Your task to perform on an android device: Open notification settings Image 0: 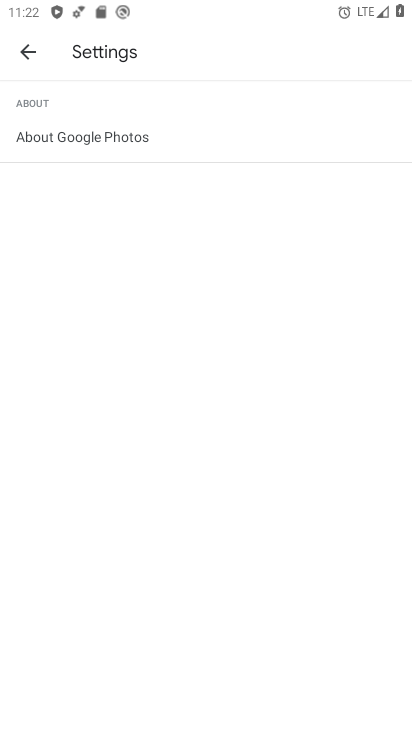
Step 0: drag from (225, 632) to (231, 9)
Your task to perform on an android device: Open notification settings Image 1: 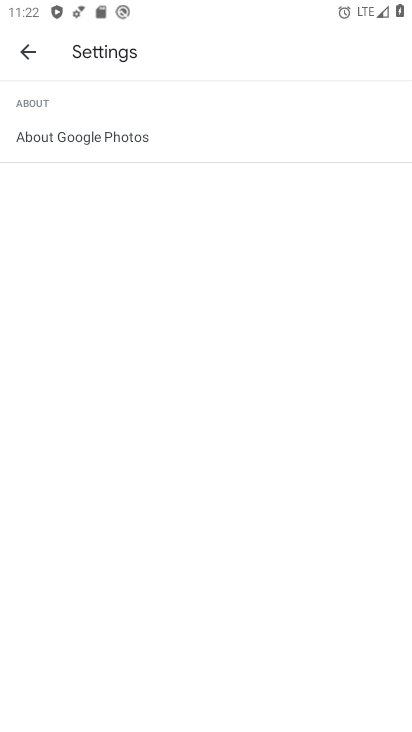
Step 1: press home button
Your task to perform on an android device: Open notification settings Image 2: 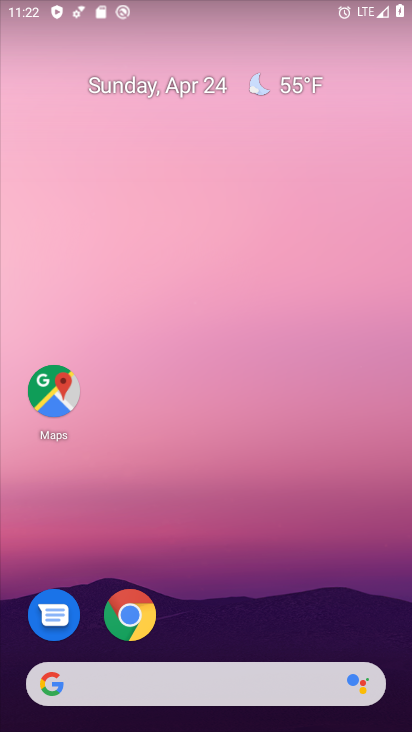
Step 2: drag from (224, 639) to (226, 26)
Your task to perform on an android device: Open notification settings Image 3: 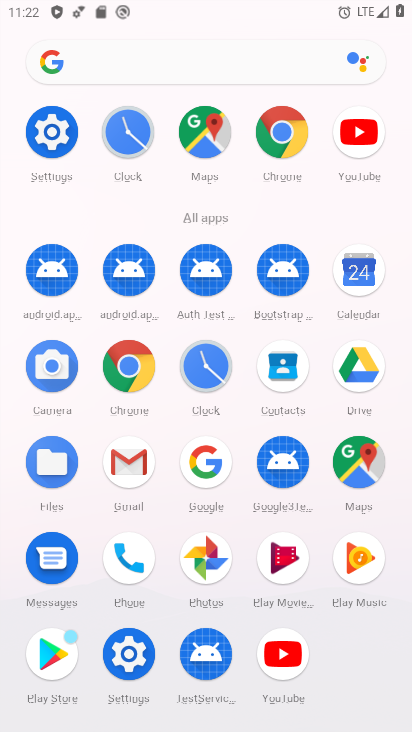
Step 3: click (48, 123)
Your task to perform on an android device: Open notification settings Image 4: 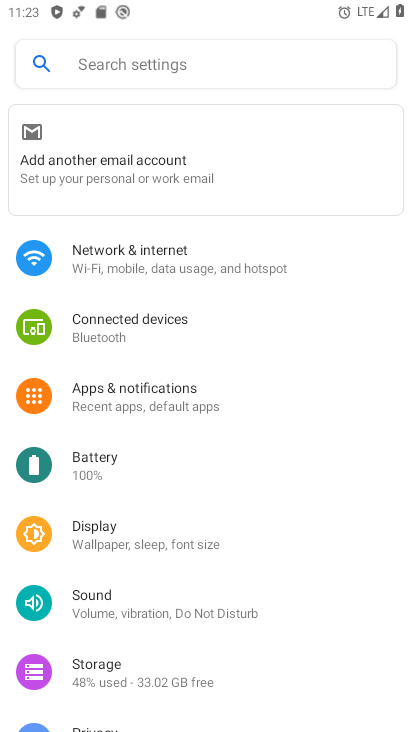
Step 4: click (197, 388)
Your task to perform on an android device: Open notification settings Image 5: 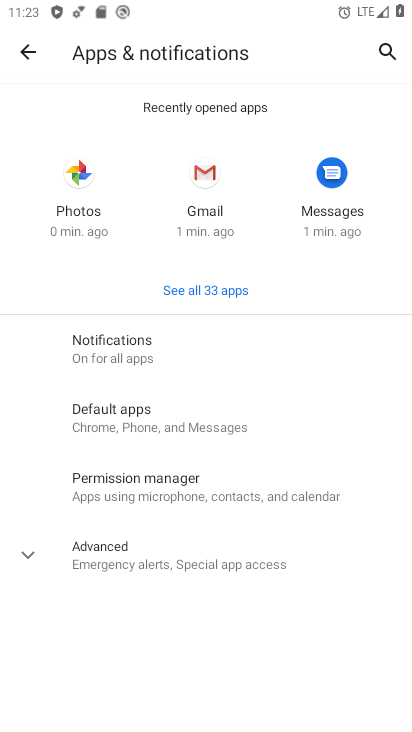
Step 5: click (160, 347)
Your task to perform on an android device: Open notification settings Image 6: 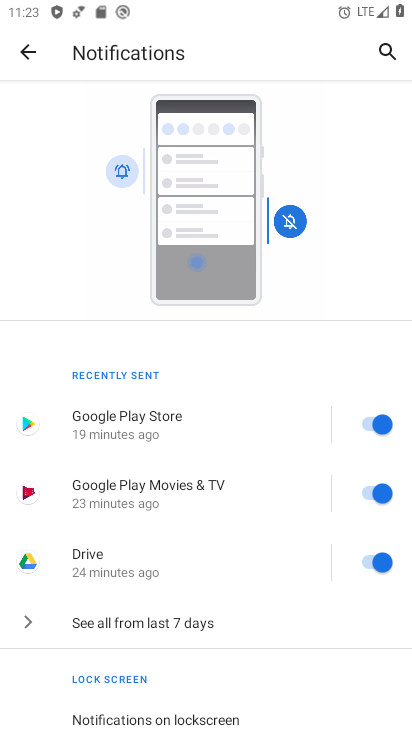
Step 6: drag from (216, 667) to (205, 319)
Your task to perform on an android device: Open notification settings Image 7: 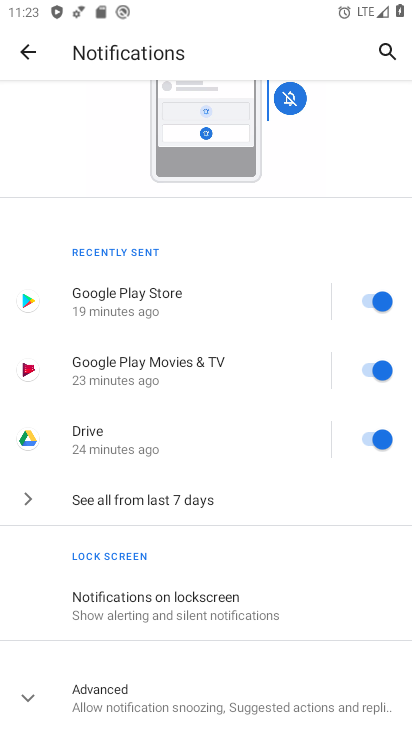
Step 7: click (372, 293)
Your task to perform on an android device: Open notification settings Image 8: 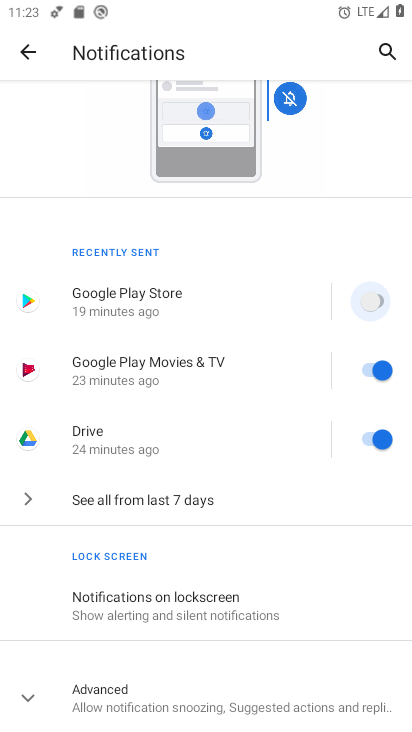
Step 8: click (382, 356)
Your task to perform on an android device: Open notification settings Image 9: 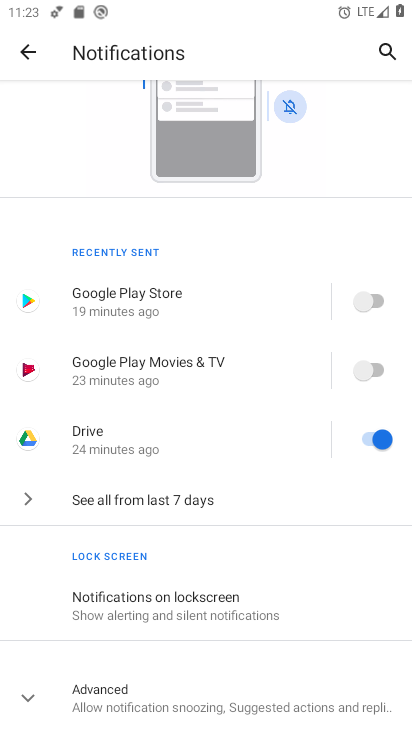
Step 9: click (381, 436)
Your task to perform on an android device: Open notification settings Image 10: 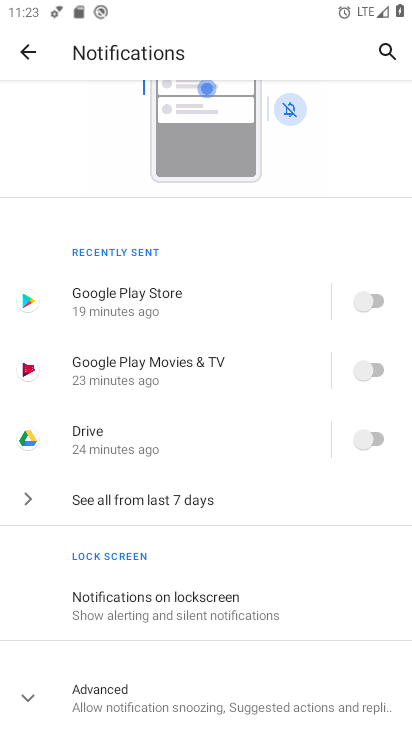
Step 10: click (132, 610)
Your task to perform on an android device: Open notification settings Image 11: 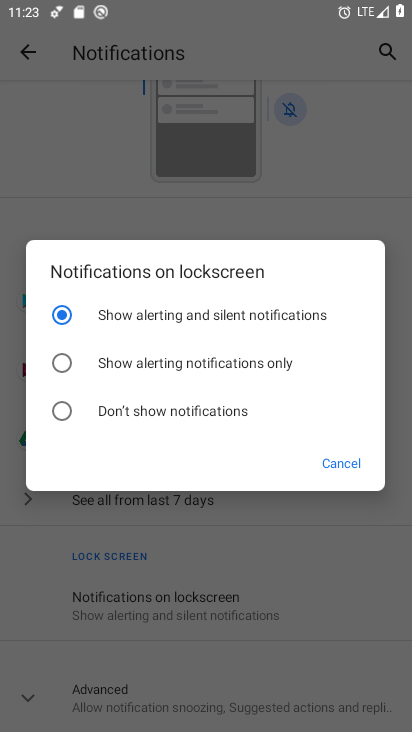
Step 11: click (61, 360)
Your task to perform on an android device: Open notification settings Image 12: 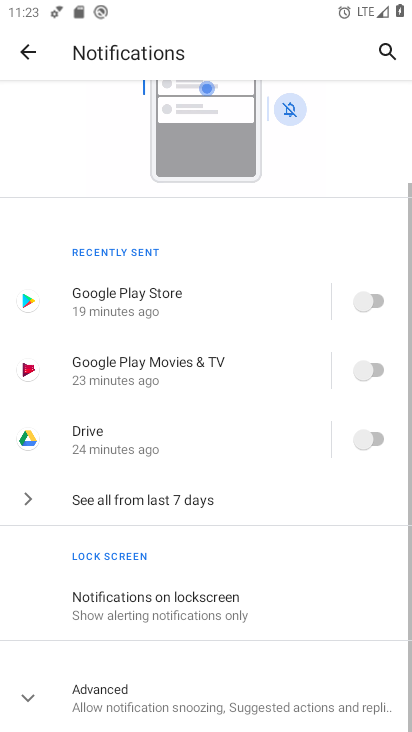
Step 12: task complete